Your task to perform on an android device: Play the last video I watched on Youtube Image 0: 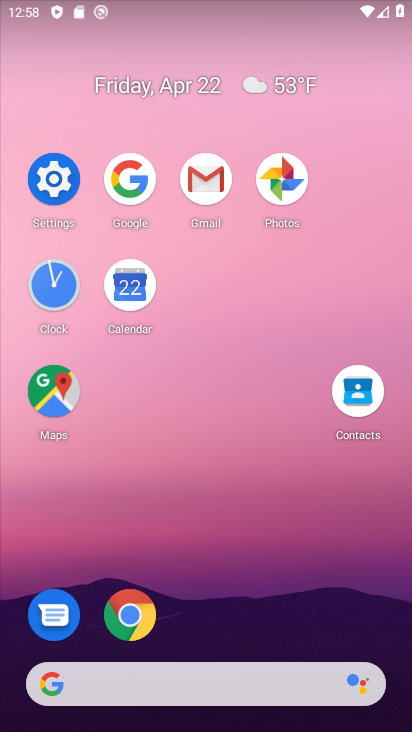
Step 0: drag from (228, 406) to (234, 178)
Your task to perform on an android device: Play the last video I watched on Youtube Image 1: 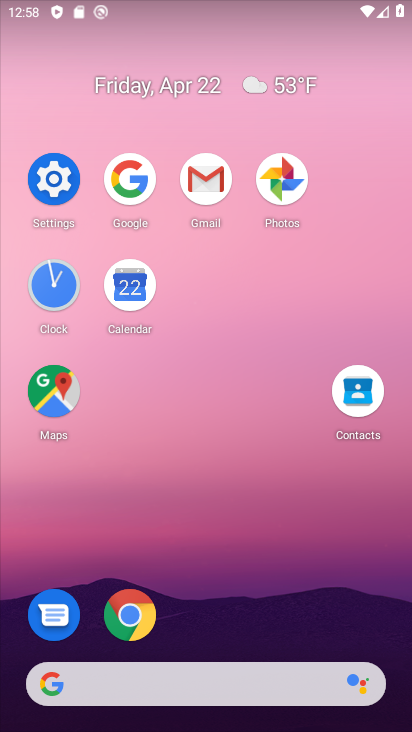
Step 1: drag from (292, 661) to (245, 196)
Your task to perform on an android device: Play the last video I watched on Youtube Image 2: 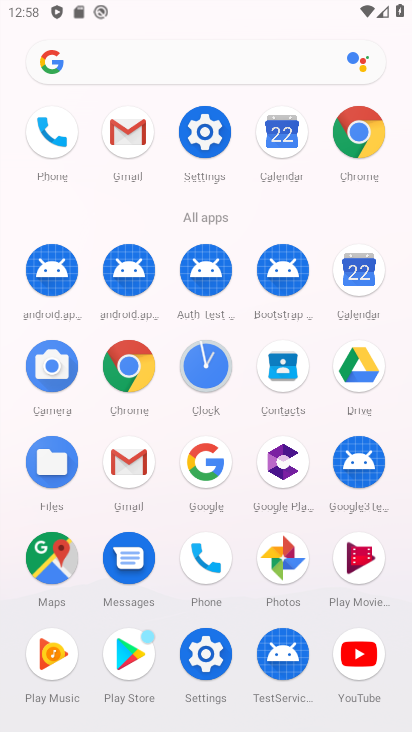
Step 2: click (379, 649)
Your task to perform on an android device: Play the last video I watched on Youtube Image 3: 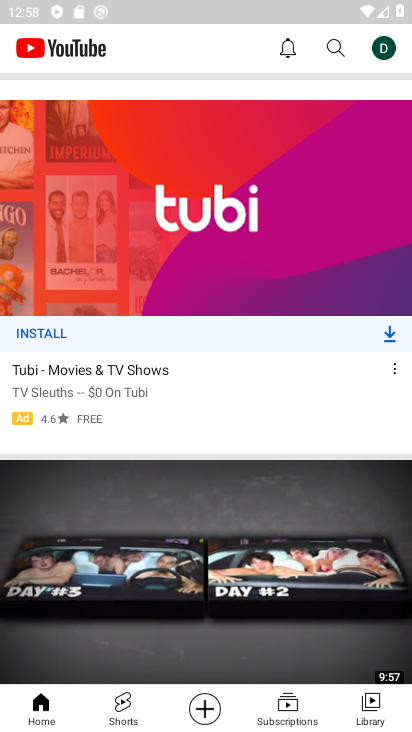
Step 3: click (374, 712)
Your task to perform on an android device: Play the last video I watched on Youtube Image 4: 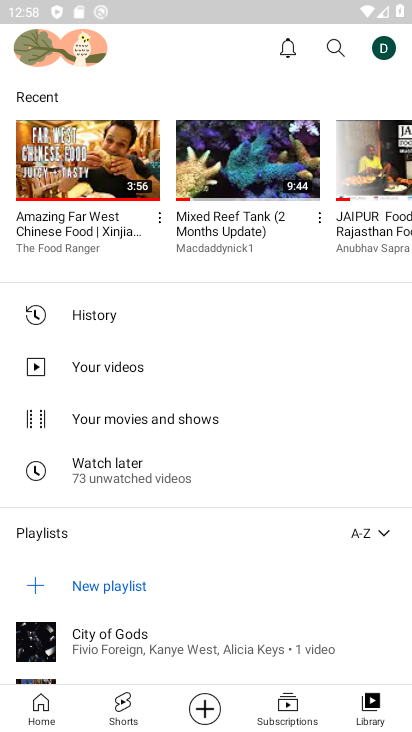
Step 4: click (131, 316)
Your task to perform on an android device: Play the last video I watched on Youtube Image 5: 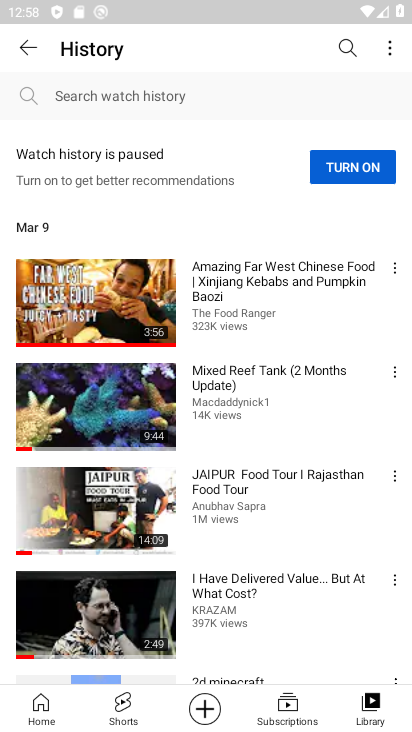
Step 5: click (218, 297)
Your task to perform on an android device: Play the last video I watched on Youtube Image 6: 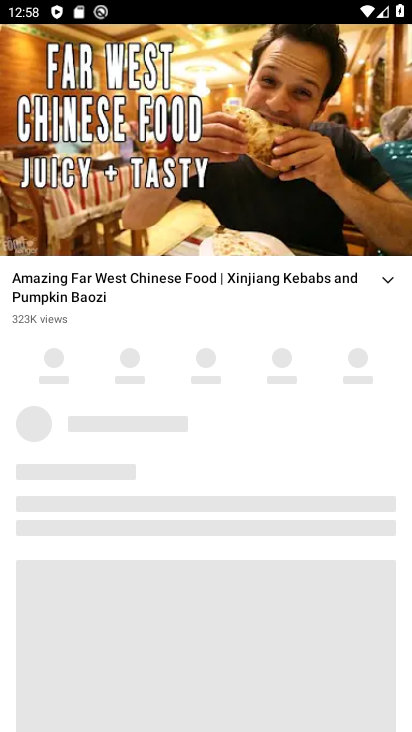
Step 6: task complete